Your task to perform on an android device: turn on sleep mode Image 0: 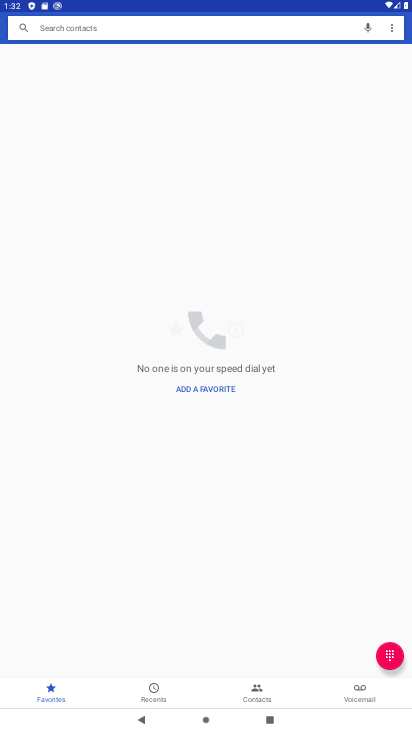
Step 0: press home button
Your task to perform on an android device: turn on sleep mode Image 1: 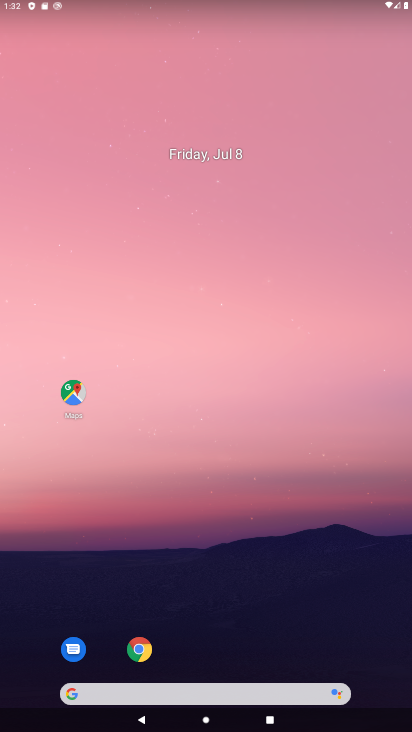
Step 1: drag from (257, 609) to (302, 149)
Your task to perform on an android device: turn on sleep mode Image 2: 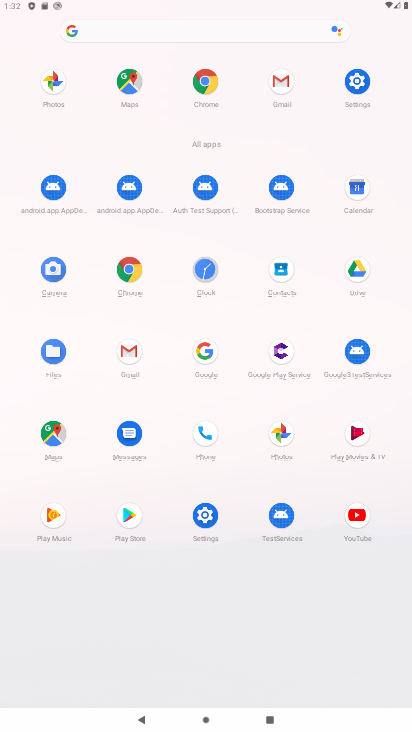
Step 2: click (365, 81)
Your task to perform on an android device: turn on sleep mode Image 3: 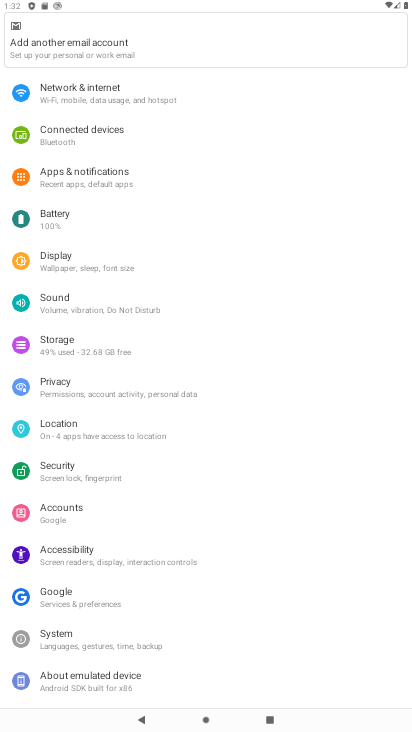
Step 3: click (88, 258)
Your task to perform on an android device: turn on sleep mode Image 4: 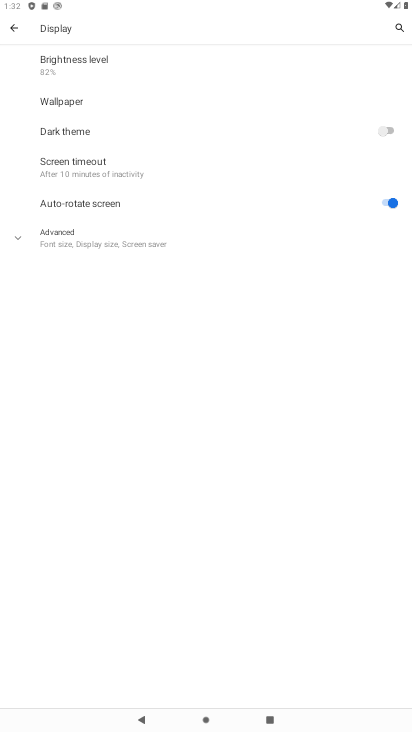
Step 4: click (95, 170)
Your task to perform on an android device: turn on sleep mode Image 5: 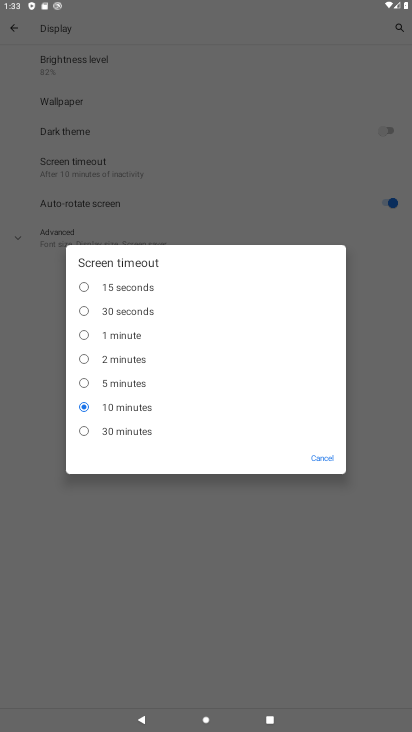
Step 5: task complete